Your task to perform on an android device: turn off improve location accuracy Image 0: 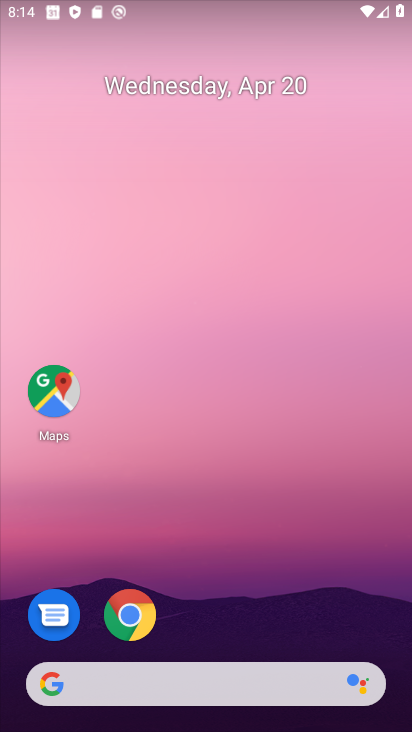
Step 0: drag from (247, 592) to (272, 146)
Your task to perform on an android device: turn off improve location accuracy Image 1: 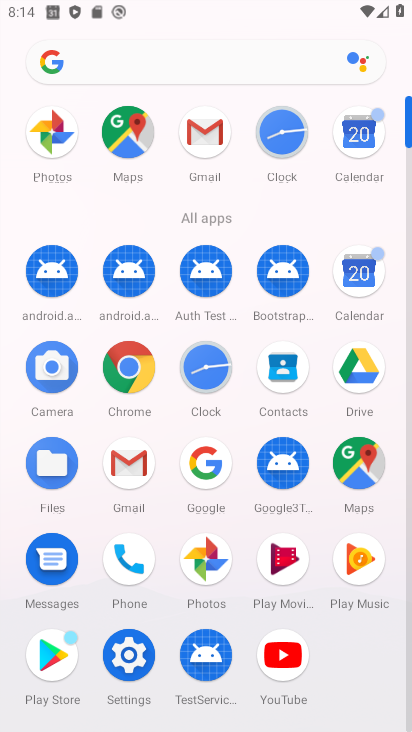
Step 1: click (133, 657)
Your task to perform on an android device: turn off improve location accuracy Image 2: 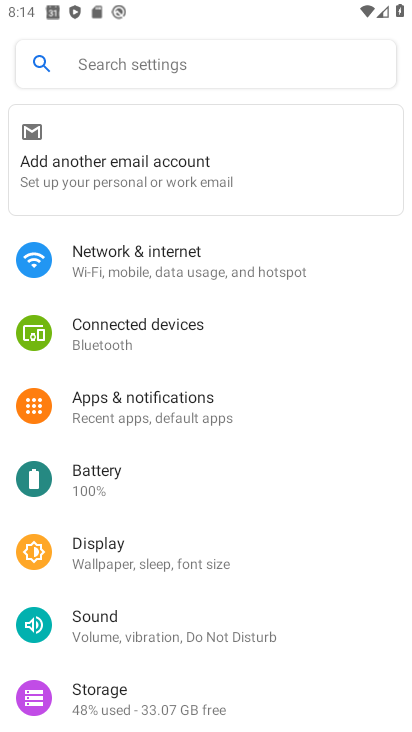
Step 2: drag from (212, 540) to (220, 26)
Your task to perform on an android device: turn off improve location accuracy Image 3: 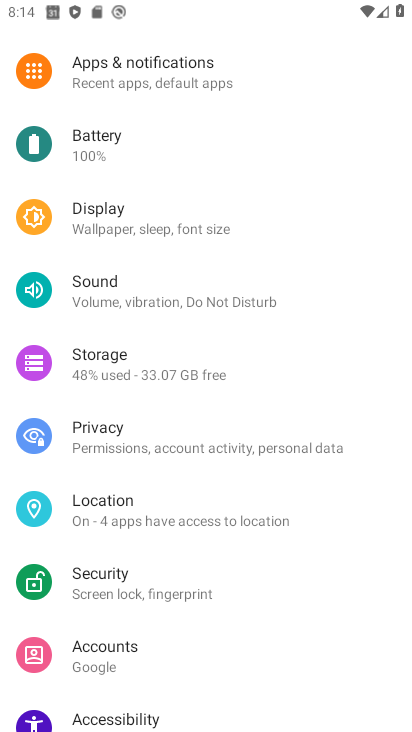
Step 3: click (130, 510)
Your task to perform on an android device: turn off improve location accuracy Image 4: 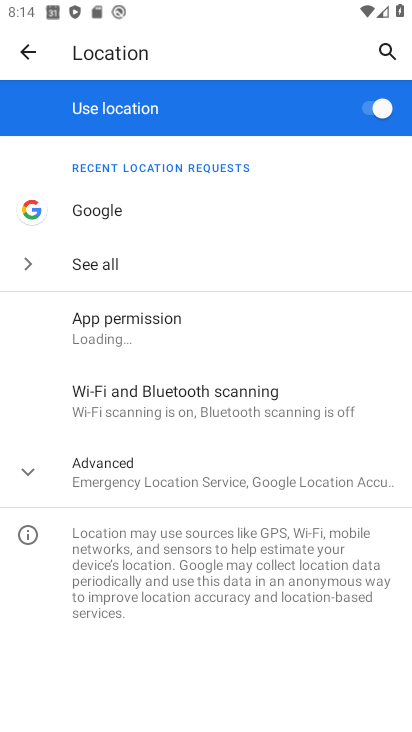
Step 4: click (139, 478)
Your task to perform on an android device: turn off improve location accuracy Image 5: 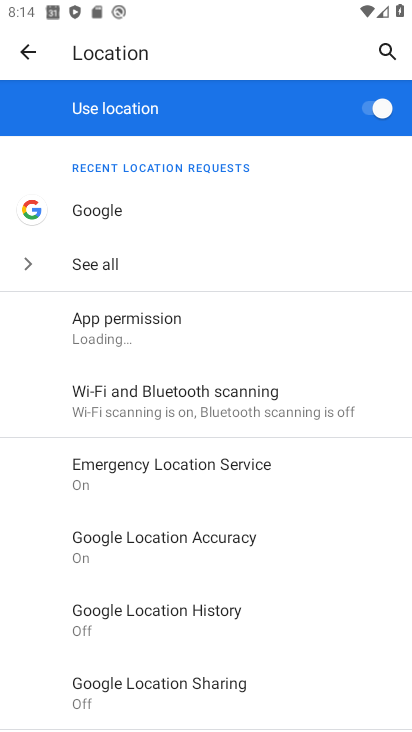
Step 5: click (178, 546)
Your task to perform on an android device: turn off improve location accuracy Image 6: 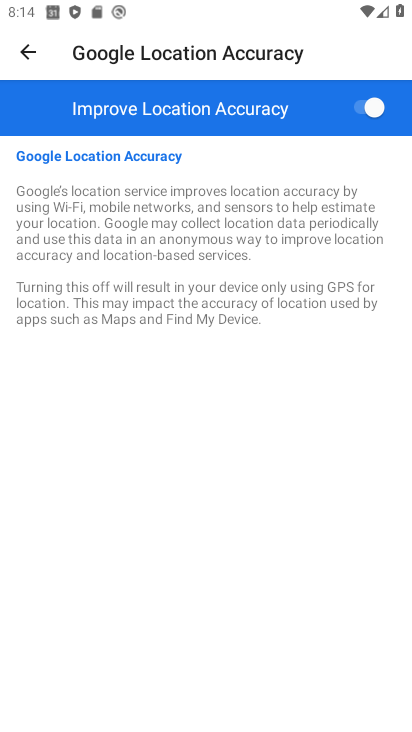
Step 6: click (382, 100)
Your task to perform on an android device: turn off improve location accuracy Image 7: 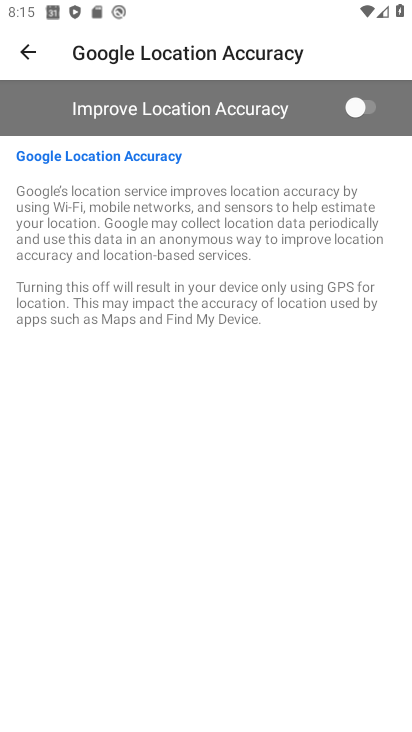
Step 7: task complete